Your task to perform on an android device: delete browsing data in the chrome app Image 0: 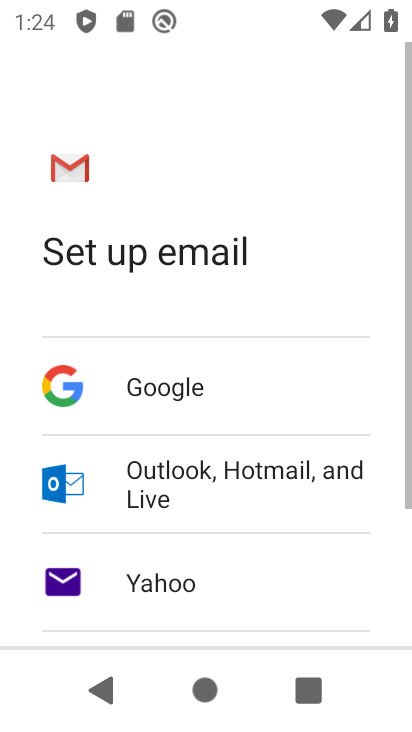
Step 0: press home button
Your task to perform on an android device: delete browsing data in the chrome app Image 1: 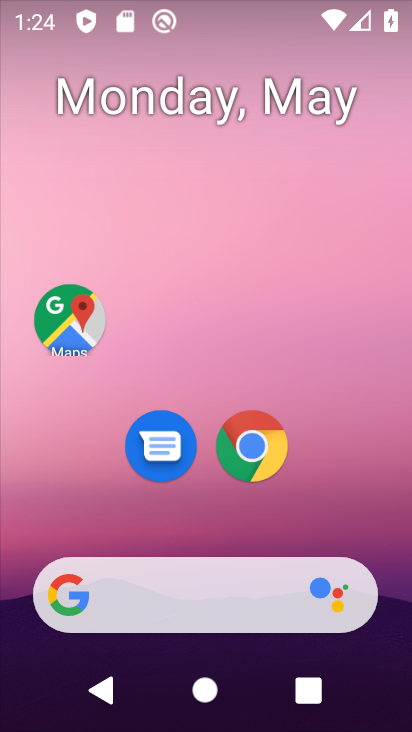
Step 1: click (246, 451)
Your task to perform on an android device: delete browsing data in the chrome app Image 2: 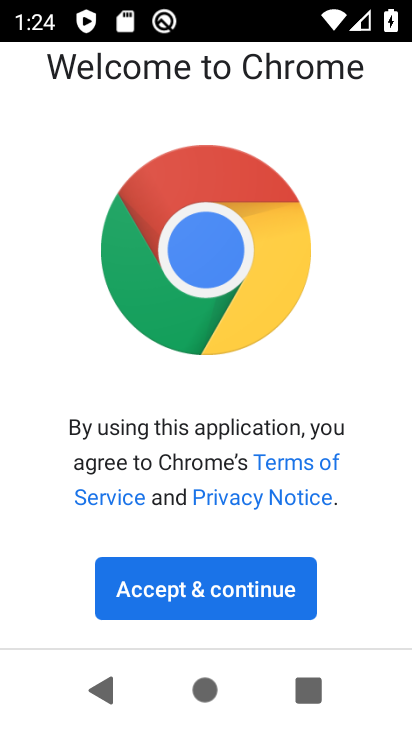
Step 2: click (225, 600)
Your task to perform on an android device: delete browsing data in the chrome app Image 3: 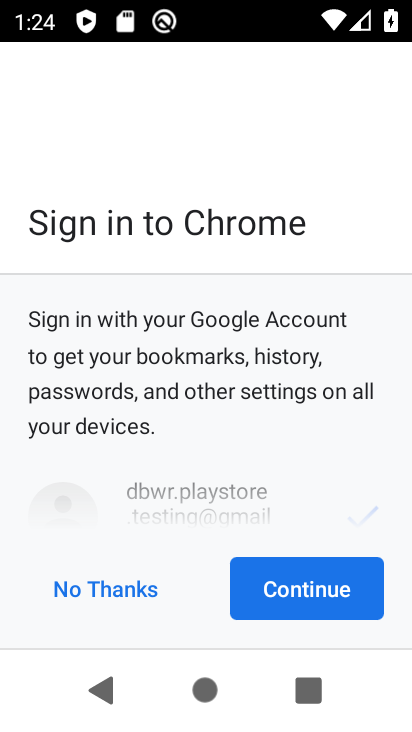
Step 3: click (281, 595)
Your task to perform on an android device: delete browsing data in the chrome app Image 4: 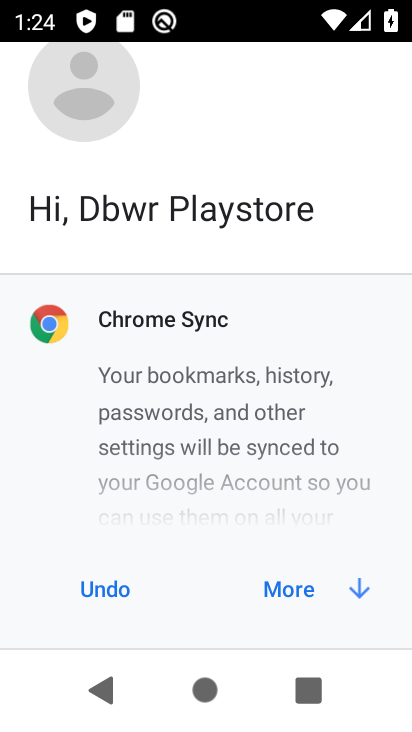
Step 4: click (281, 595)
Your task to perform on an android device: delete browsing data in the chrome app Image 5: 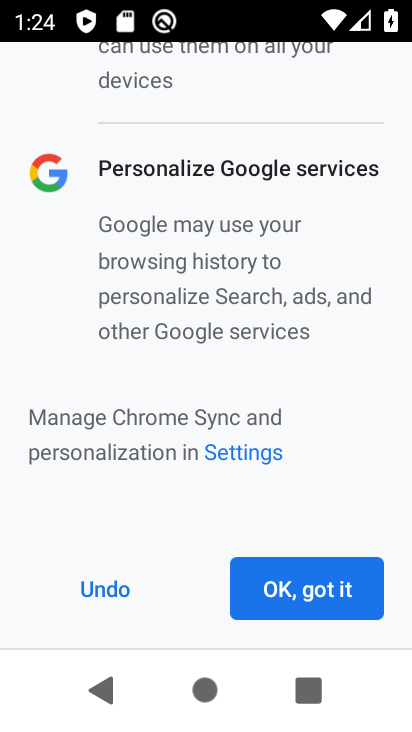
Step 5: click (281, 595)
Your task to perform on an android device: delete browsing data in the chrome app Image 6: 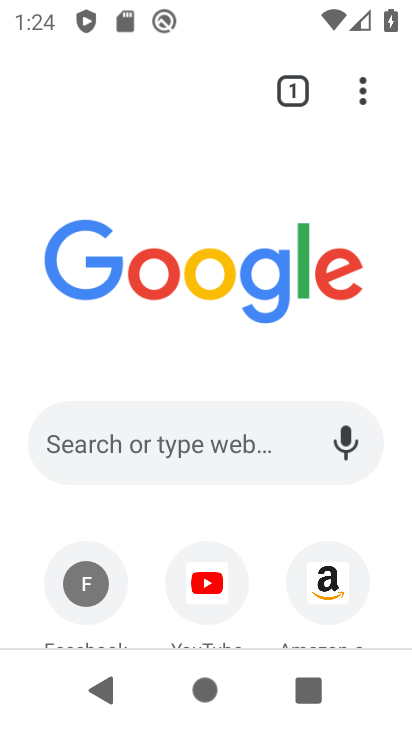
Step 6: drag from (364, 87) to (116, 277)
Your task to perform on an android device: delete browsing data in the chrome app Image 7: 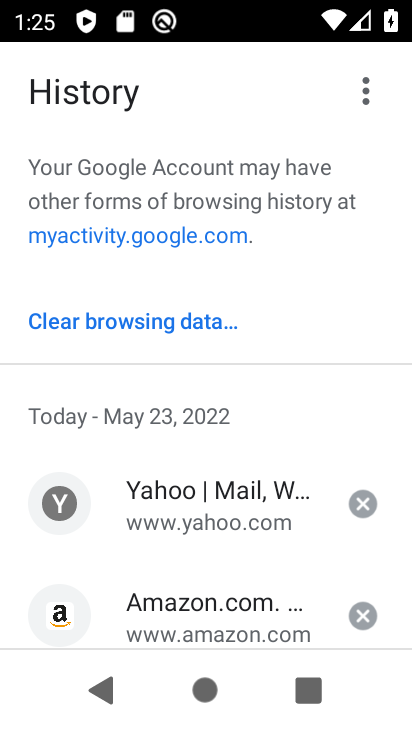
Step 7: click (119, 328)
Your task to perform on an android device: delete browsing data in the chrome app Image 8: 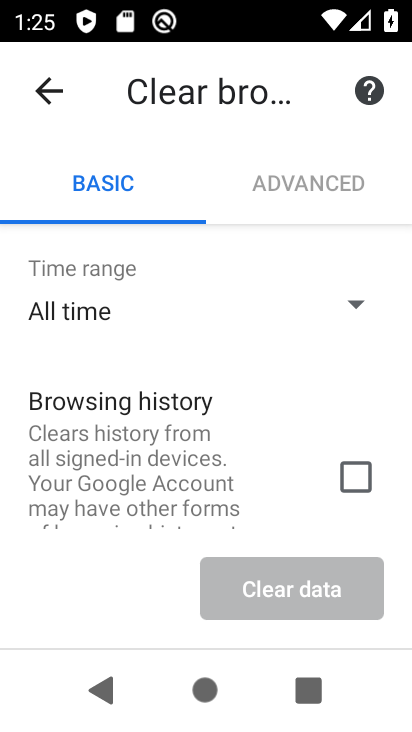
Step 8: click (334, 465)
Your task to perform on an android device: delete browsing data in the chrome app Image 9: 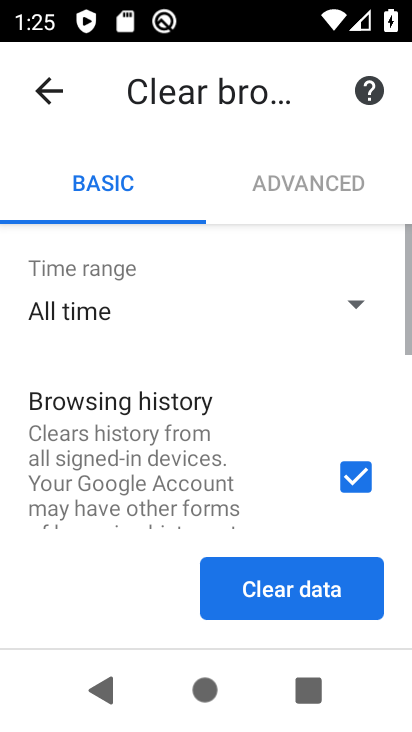
Step 9: click (314, 601)
Your task to perform on an android device: delete browsing data in the chrome app Image 10: 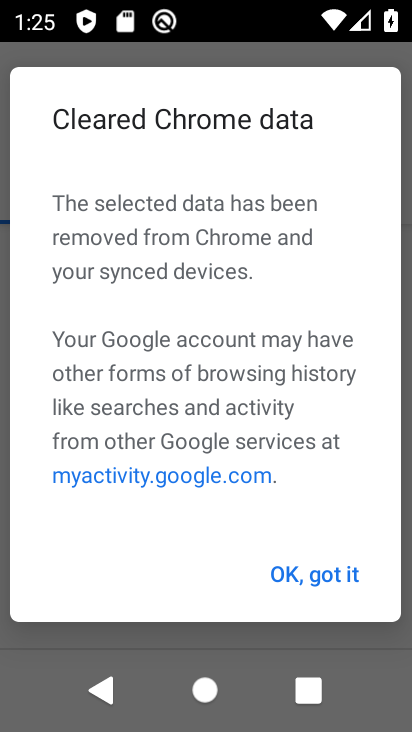
Step 10: click (325, 569)
Your task to perform on an android device: delete browsing data in the chrome app Image 11: 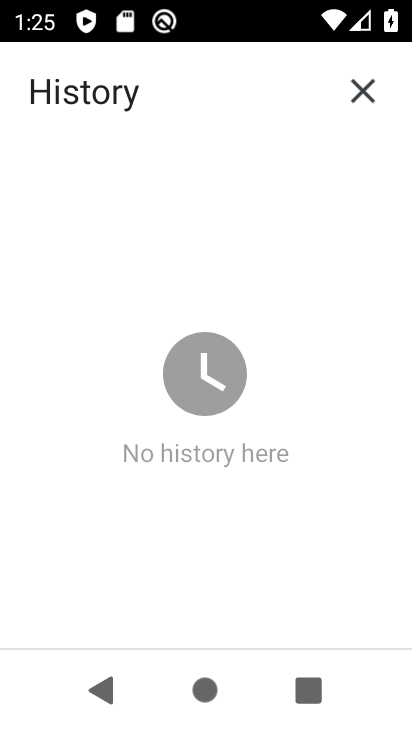
Step 11: task complete